Your task to perform on an android device: turn off data saver in the chrome app Image 0: 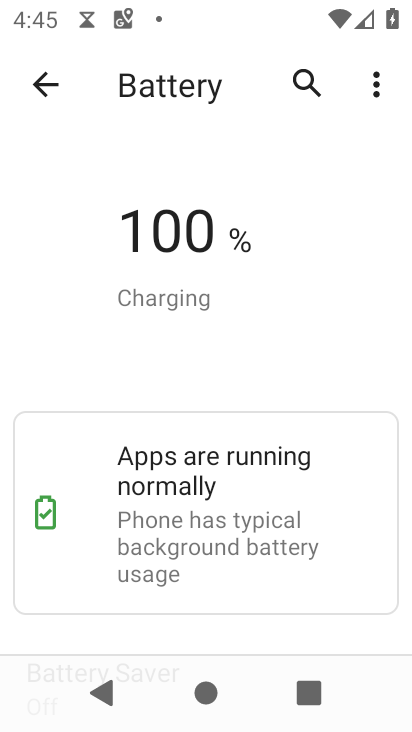
Step 0: press home button
Your task to perform on an android device: turn off data saver in the chrome app Image 1: 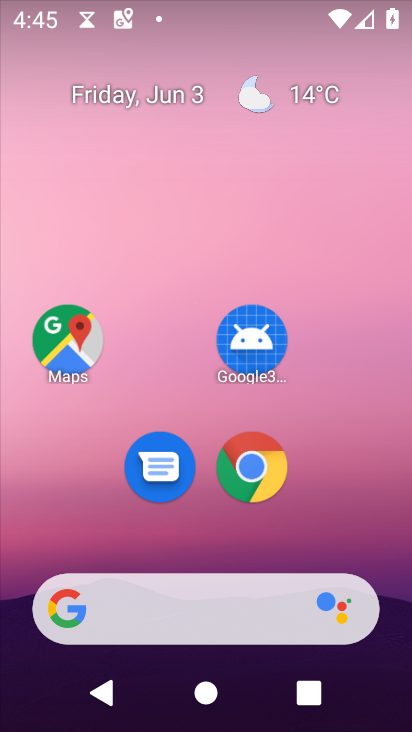
Step 1: click (242, 454)
Your task to perform on an android device: turn off data saver in the chrome app Image 2: 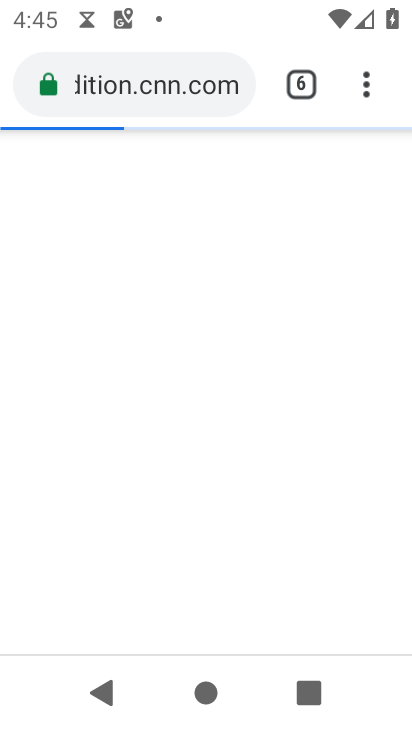
Step 2: click (369, 93)
Your task to perform on an android device: turn off data saver in the chrome app Image 3: 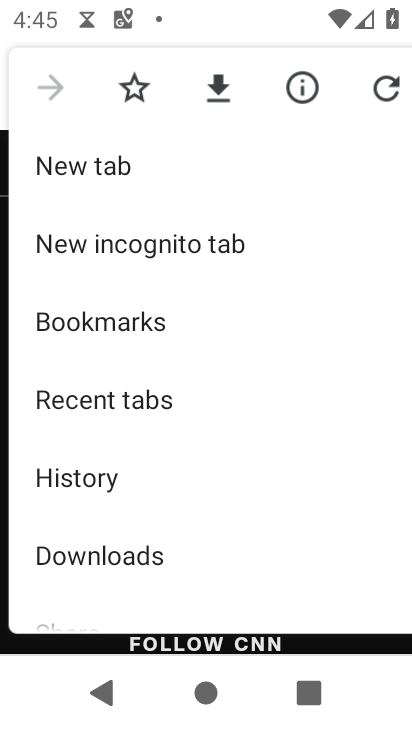
Step 3: drag from (212, 487) to (233, 144)
Your task to perform on an android device: turn off data saver in the chrome app Image 4: 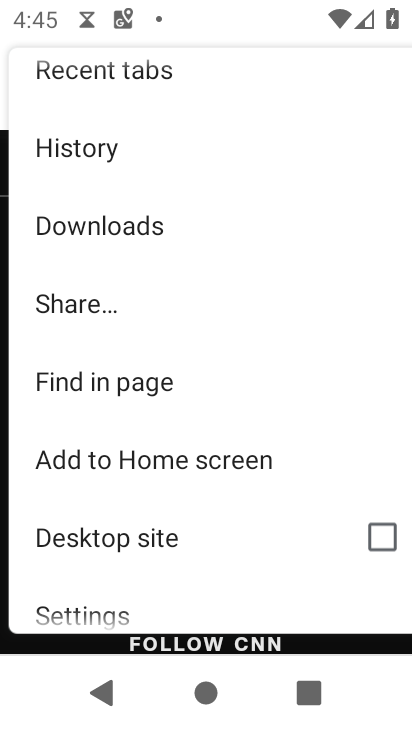
Step 4: drag from (96, 523) to (189, 142)
Your task to perform on an android device: turn off data saver in the chrome app Image 5: 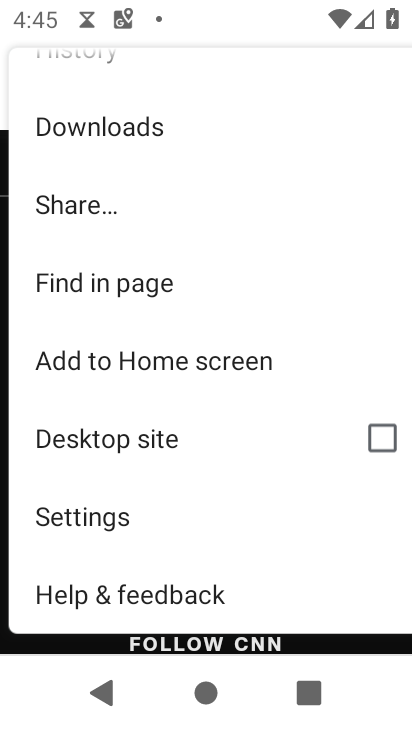
Step 5: click (118, 516)
Your task to perform on an android device: turn off data saver in the chrome app Image 6: 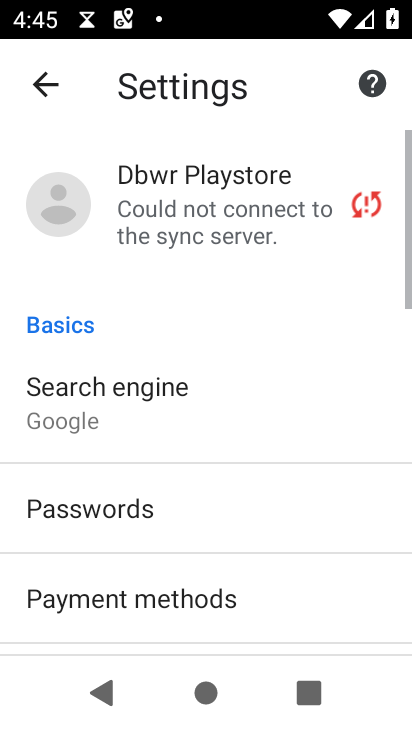
Step 6: drag from (135, 512) to (174, 145)
Your task to perform on an android device: turn off data saver in the chrome app Image 7: 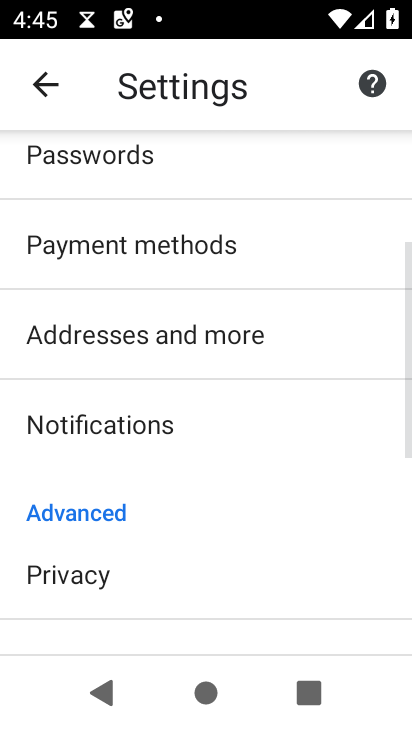
Step 7: drag from (167, 579) to (223, 210)
Your task to perform on an android device: turn off data saver in the chrome app Image 8: 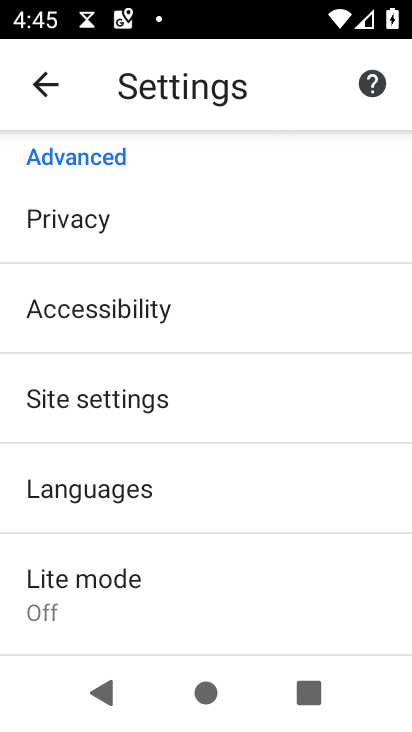
Step 8: click (219, 303)
Your task to perform on an android device: turn off data saver in the chrome app Image 9: 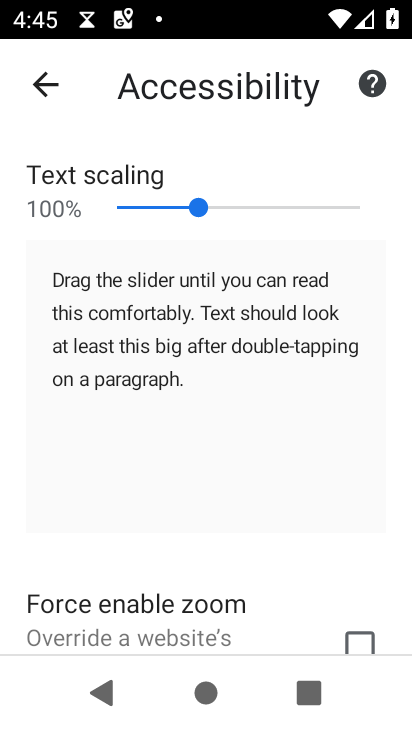
Step 9: drag from (212, 486) to (256, 150)
Your task to perform on an android device: turn off data saver in the chrome app Image 10: 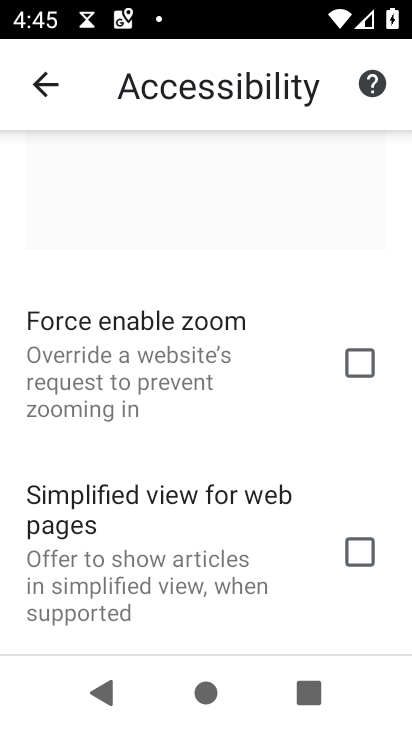
Step 10: drag from (218, 511) to (250, 179)
Your task to perform on an android device: turn off data saver in the chrome app Image 11: 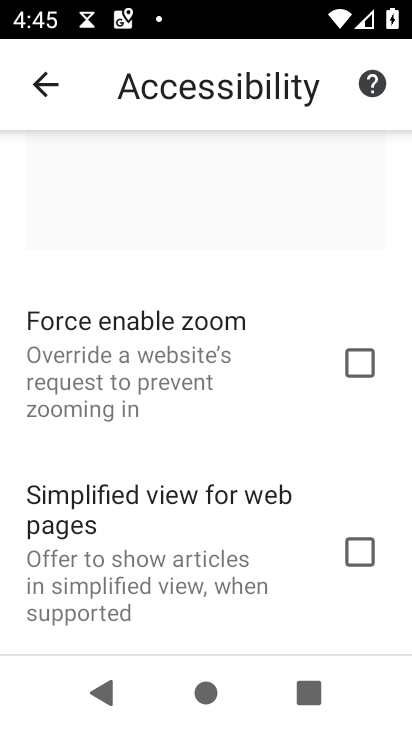
Step 11: press back button
Your task to perform on an android device: turn off data saver in the chrome app Image 12: 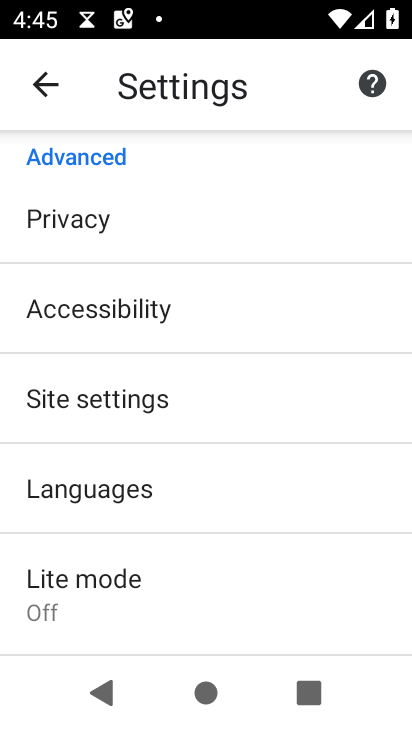
Step 12: click (189, 211)
Your task to perform on an android device: turn off data saver in the chrome app Image 13: 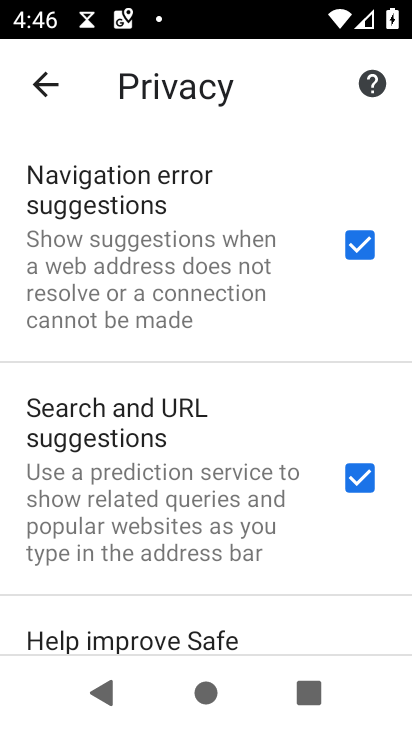
Step 13: drag from (169, 475) to (217, 180)
Your task to perform on an android device: turn off data saver in the chrome app Image 14: 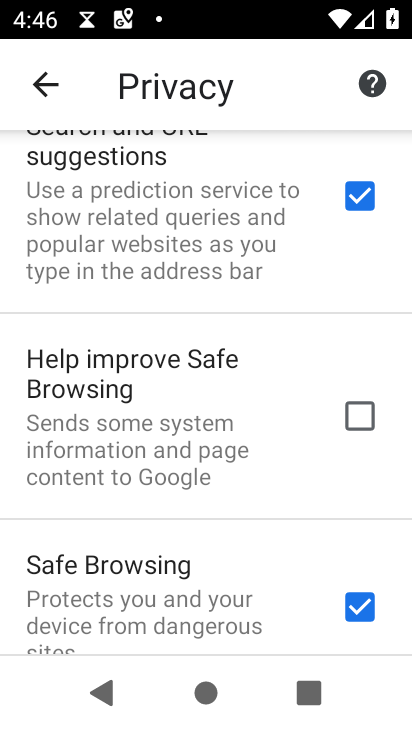
Step 14: drag from (220, 414) to (250, 188)
Your task to perform on an android device: turn off data saver in the chrome app Image 15: 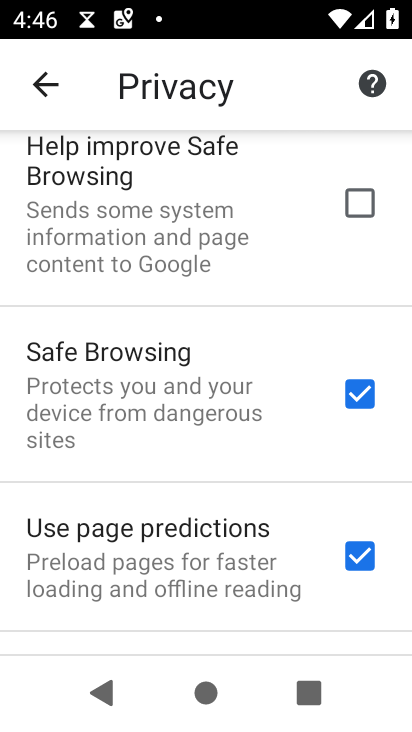
Step 15: drag from (190, 519) to (189, 227)
Your task to perform on an android device: turn off data saver in the chrome app Image 16: 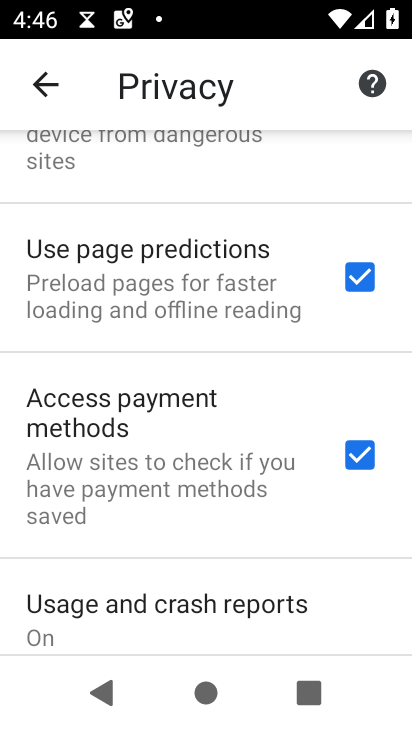
Step 16: drag from (178, 488) to (186, 219)
Your task to perform on an android device: turn off data saver in the chrome app Image 17: 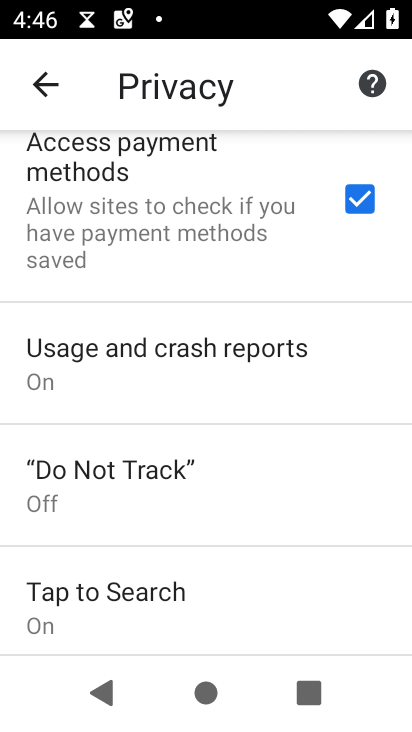
Step 17: drag from (188, 573) to (221, 274)
Your task to perform on an android device: turn off data saver in the chrome app Image 18: 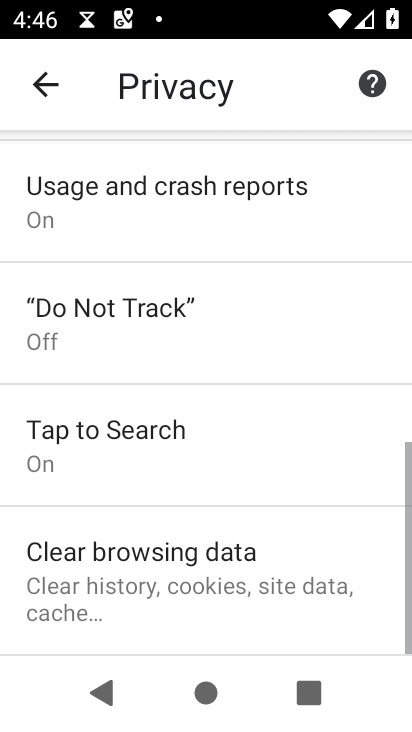
Step 18: drag from (223, 542) to (236, 277)
Your task to perform on an android device: turn off data saver in the chrome app Image 19: 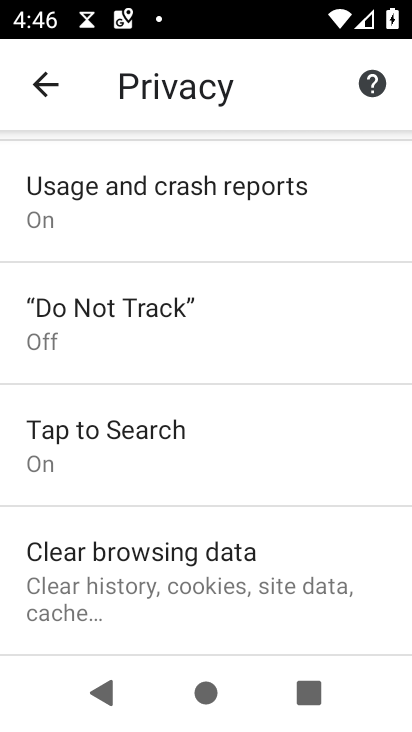
Step 19: press back button
Your task to perform on an android device: turn off data saver in the chrome app Image 20: 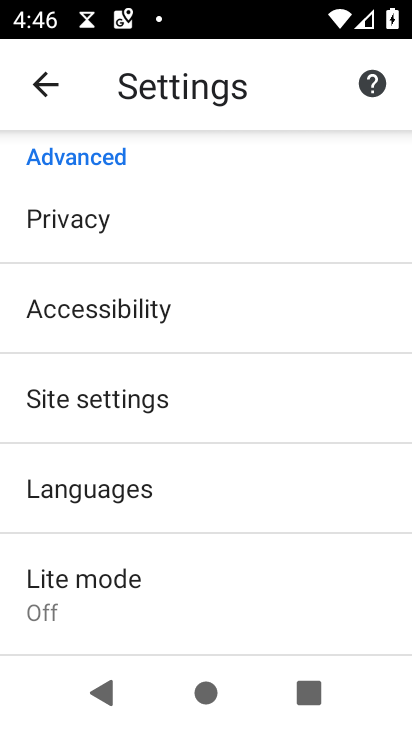
Step 20: drag from (191, 456) to (233, 236)
Your task to perform on an android device: turn off data saver in the chrome app Image 21: 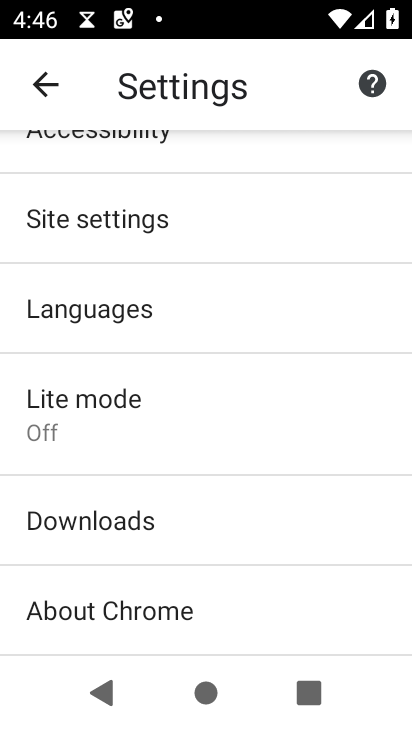
Step 21: drag from (166, 208) to (187, 476)
Your task to perform on an android device: turn off data saver in the chrome app Image 22: 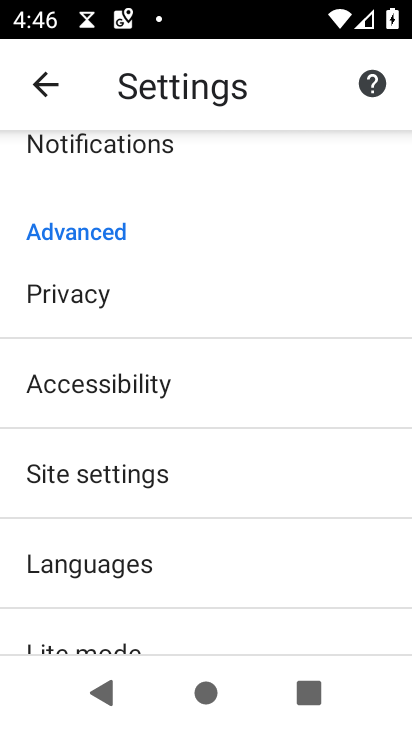
Step 22: click (218, 379)
Your task to perform on an android device: turn off data saver in the chrome app Image 23: 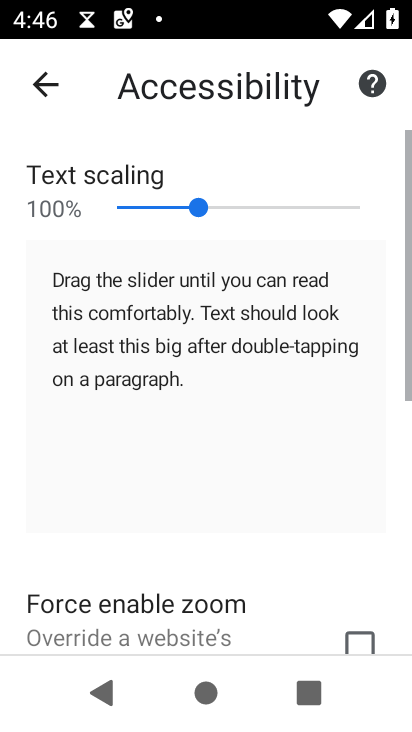
Step 23: task complete